Your task to perform on an android device: Open accessibility settings Image 0: 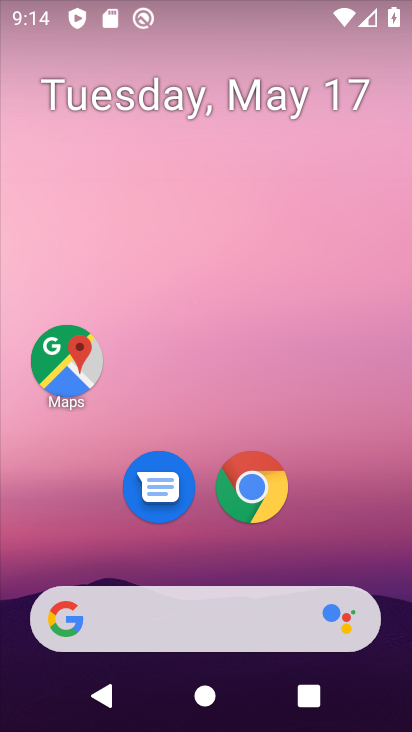
Step 0: press home button
Your task to perform on an android device: Open accessibility settings Image 1: 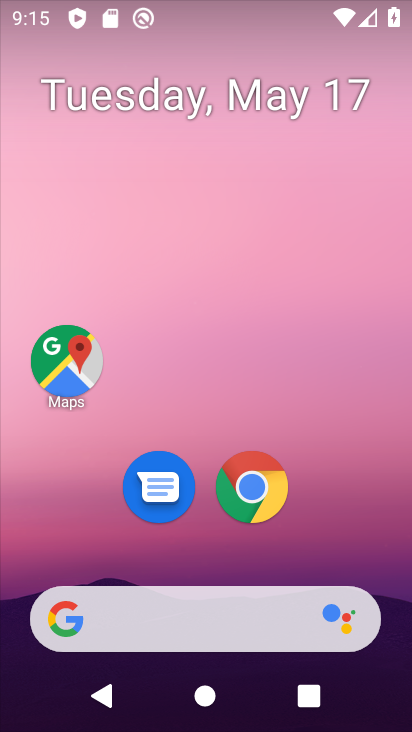
Step 1: drag from (183, 672) to (188, 191)
Your task to perform on an android device: Open accessibility settings Image 2: 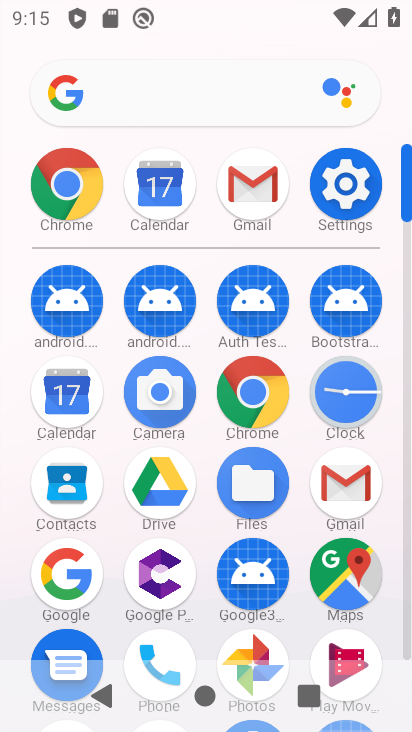
Step 2: click (342, 209)
Your task to perform on an android device: Open accessibility settings Image 3: 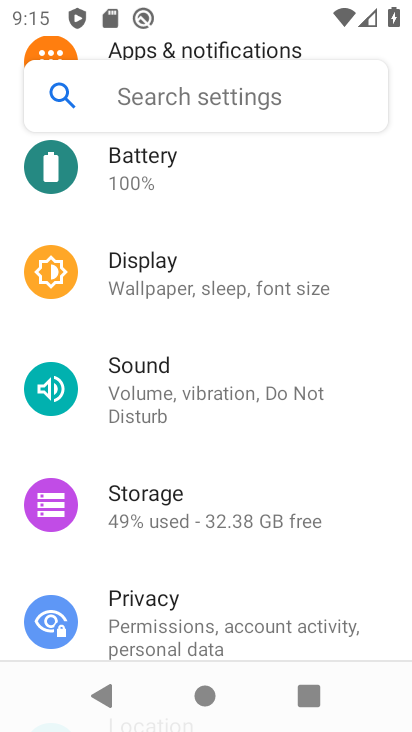
Step 3: click (179, 94)
Your task to perform on an android device: Open accessibility settings Image 4: 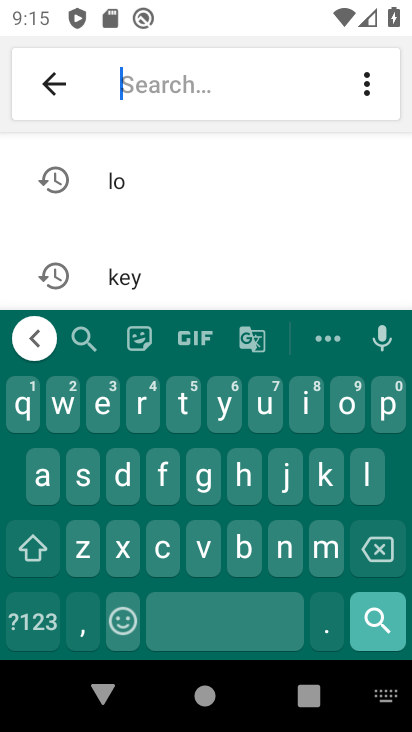
Step 4: click (29, 479)
Your task to perform on an android device: Open accessibility settings Image 5: 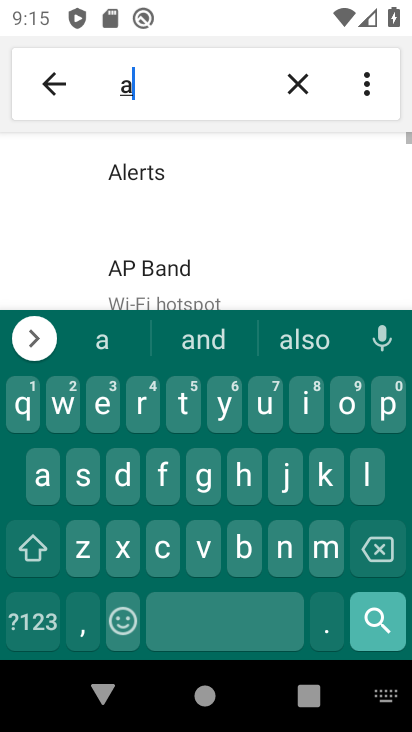
Step 5: click (156, 568)
Your task to perform on an android device: Open accessibility settings Image 6: 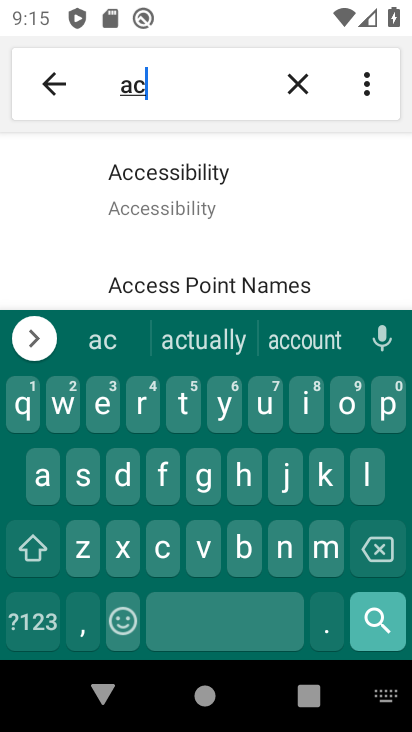
Step 6: click (138, 173)
Your task to perform on an android device: Open accessibility settings Image 7: 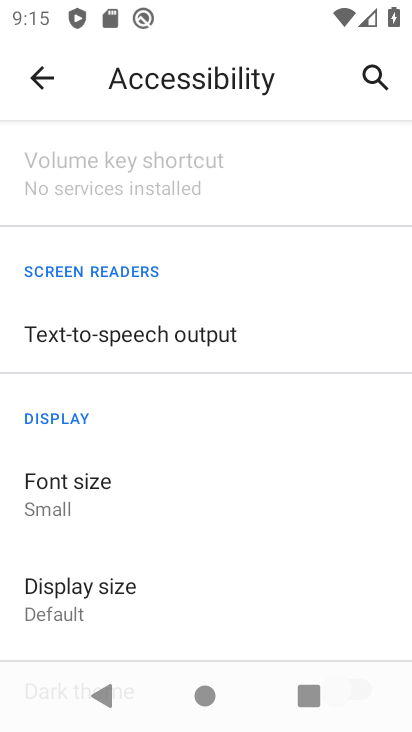
Step 7: task complete